Your task to perform on an android device: find snoozed emails in the gmail app Image 0: 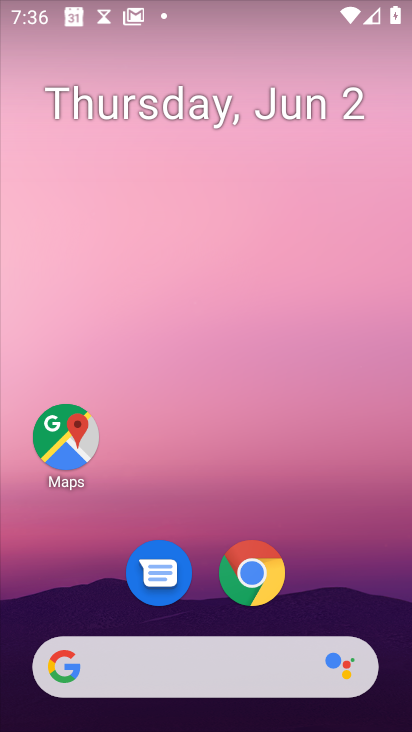
Step 0: press home button
Your task to perform on an android device: find snoozed emails in the gmail app Image 1: 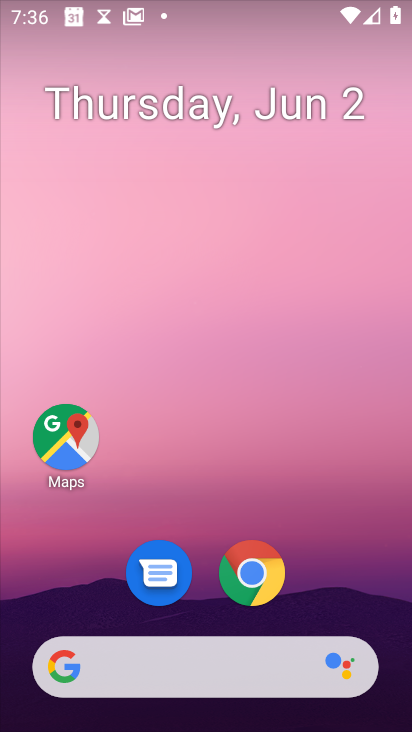
Step 1: drag from (169, 668) to (367, 55)
Your task to perform on an android device: find snoozed emails in the gmail app Image 2: 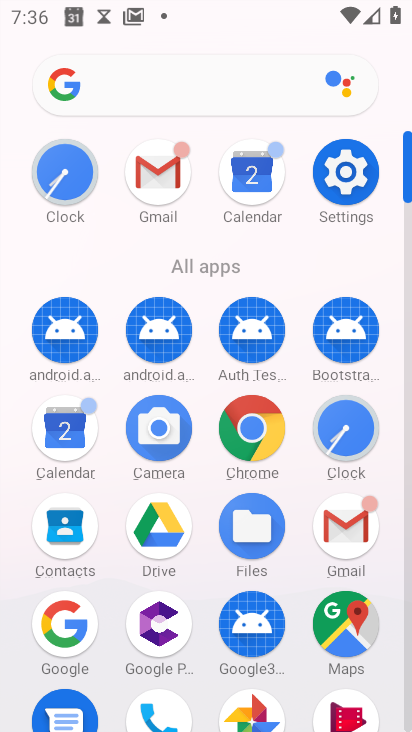
Step 2: click (152, 186)
Your task to perform on an android device: find snoozed emails in the gmail app Image 3: 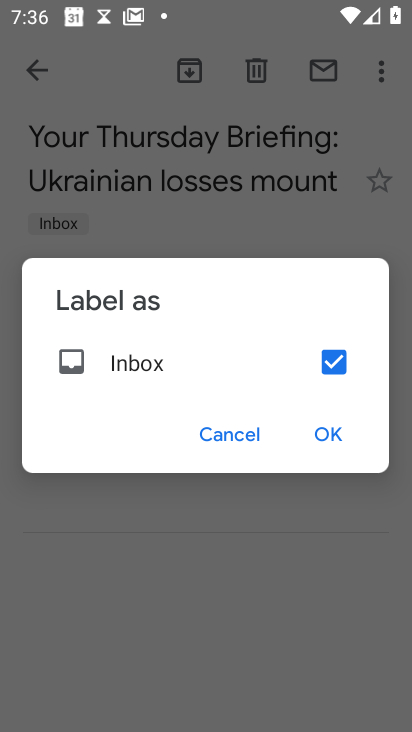
Step 3: click (337, 437)
Your task to perform on an android device: find snoozed emails in the gmail app Image 4: 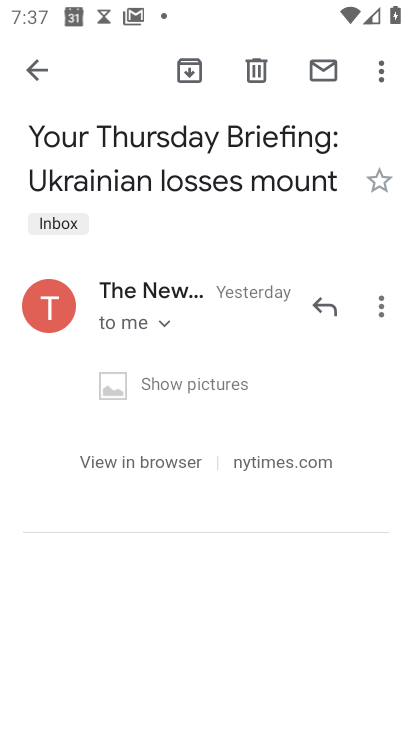
Step 4: click (41, 69)
Your task to perform on an android device: find snoozed emails in the gmail app Image 5: 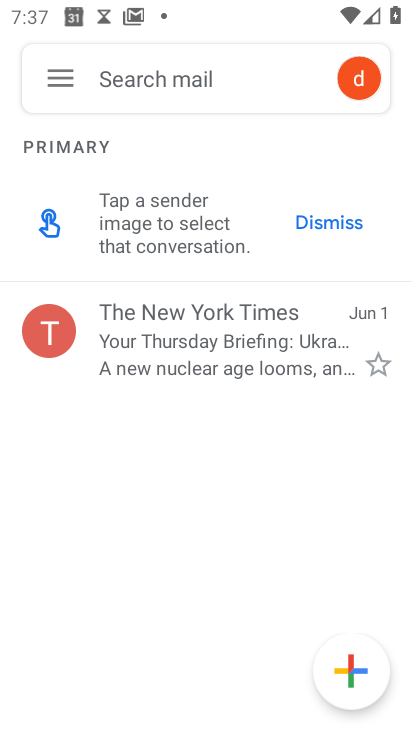
Step 5: click (57, 85)
Your task to perform on an android device: find snoozed emails in the gmail app Image 6: 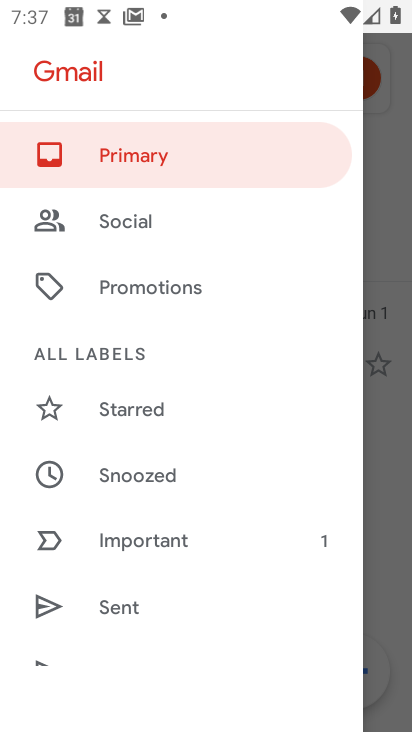
Step 6: click (145, 471)
Your task to perform on an android device: find snoozed emails in the gmail app Image 7: 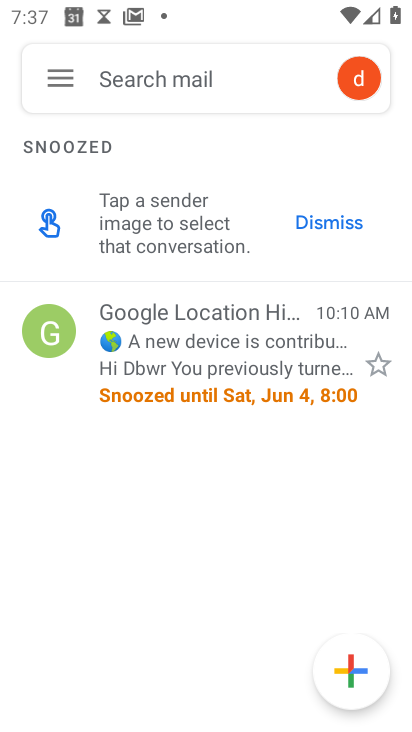
Step 7: task complete